Your task to perform on an android device: Toggle the flashlight Image 0: 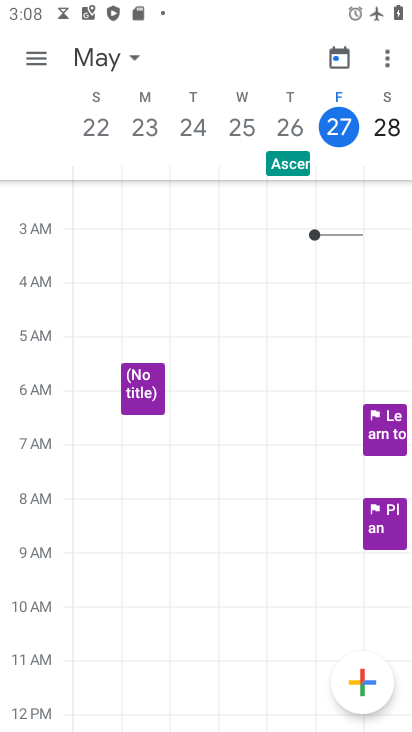
Step 0: press back button
Your task to perform on an android device: Toggle the flashlight Image 1: 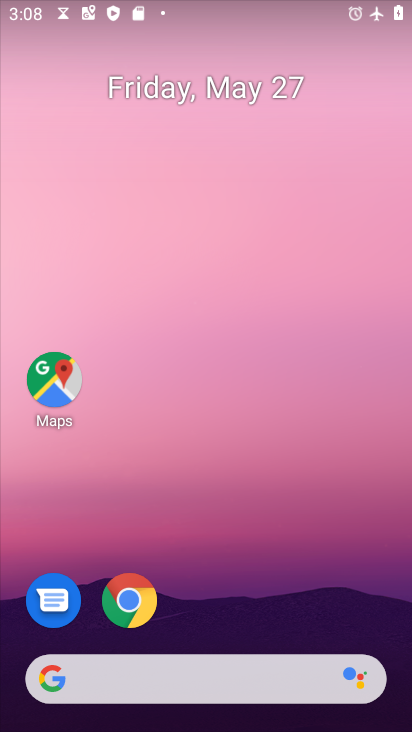
Step 1: drag from (304, 603) to (262, 52)
Your task to perform on an android device: Toggle the flashlight Image 2: 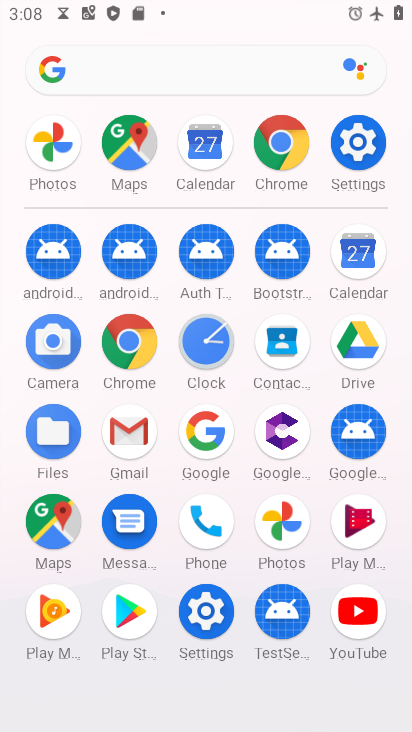
Step 2: click (202, 609)
Your task to perform on an android device: Toggle the flashlight Image 3: 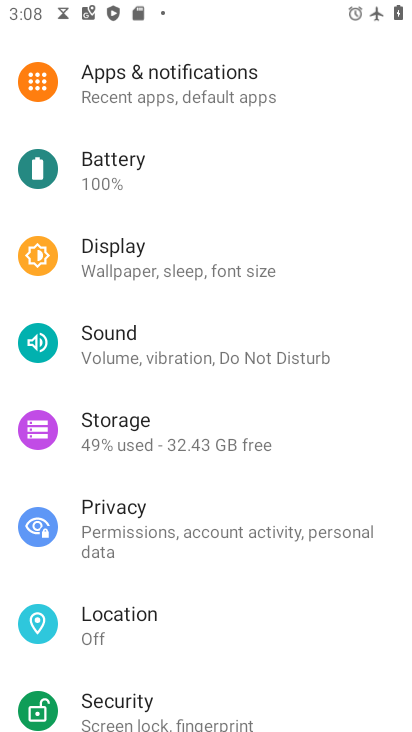
Step 3: drag from (316, 186) to (320, 555)
Your task to perform on an android device: Toggle the flashlight Image 4: 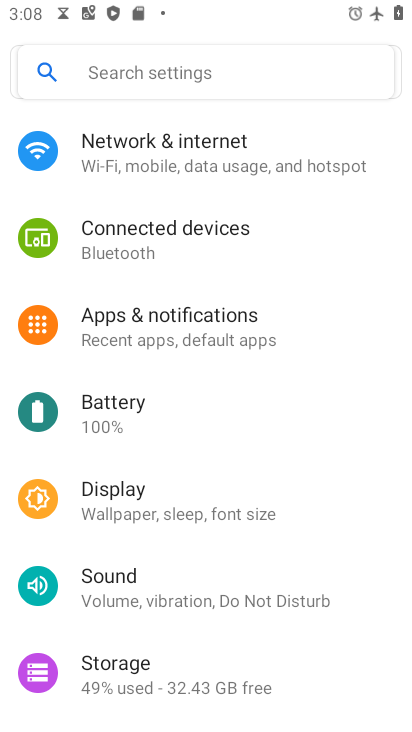
Step 4: click (206, 149)
Your task to perform on an android device: Toggle the flashlight Image 5: 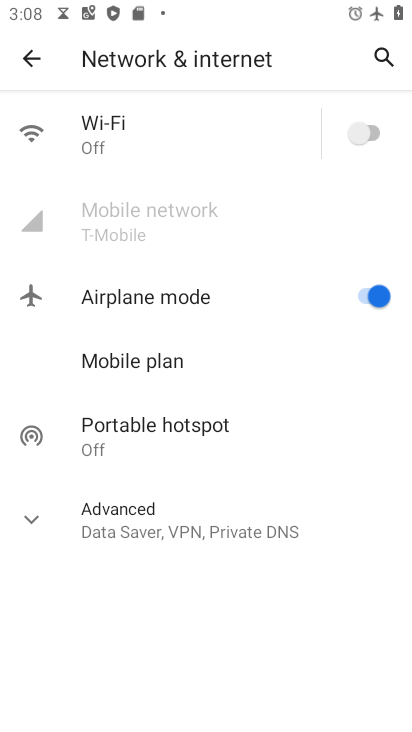
Step 5: click (34, 518)
Your task to perform on an android device: Toggle the flashlight Image 6: 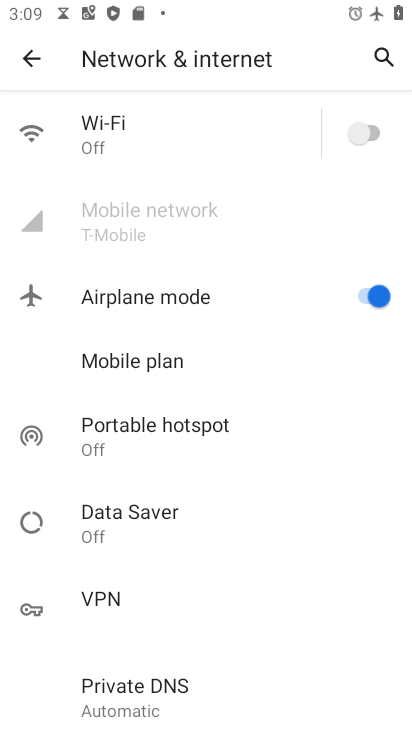
Step 6: task complete